Your task to perform on an android device: toggle notifications settings in the gmail app Image 0: 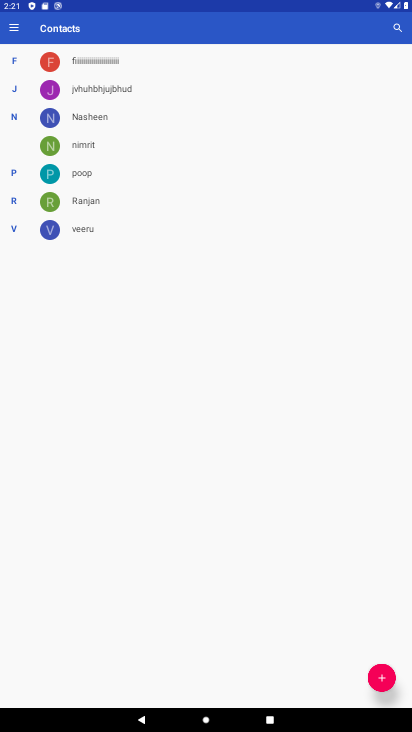
Step 0: press home button
Your task to perform on an android device: toggle notifications settings in the gmail app Image 1: 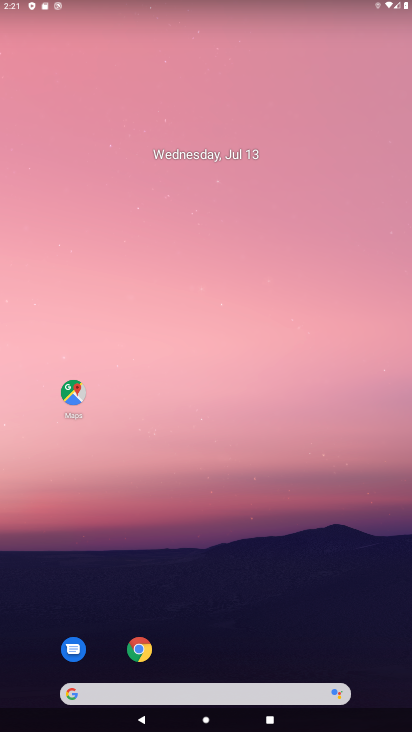
Step 1: drag from (252, 571) to (242, 100)
Your task to perform on an android device: toggle notifications settings in the gmail app Image 2: 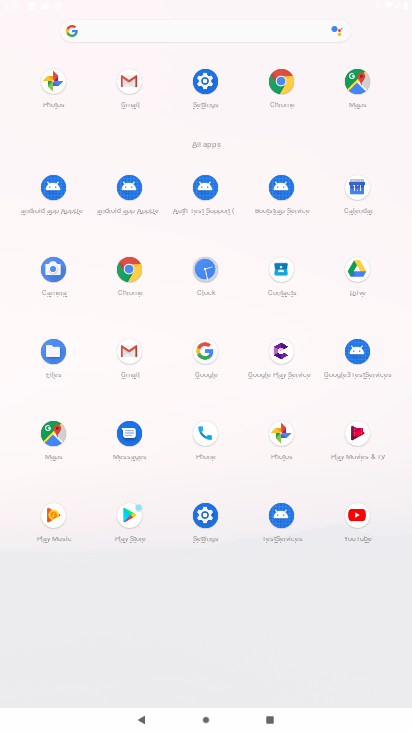
Step 2: click (128, 79)
Your task to perform on an android device: toggle notifications settings in the gmail app Image 3: 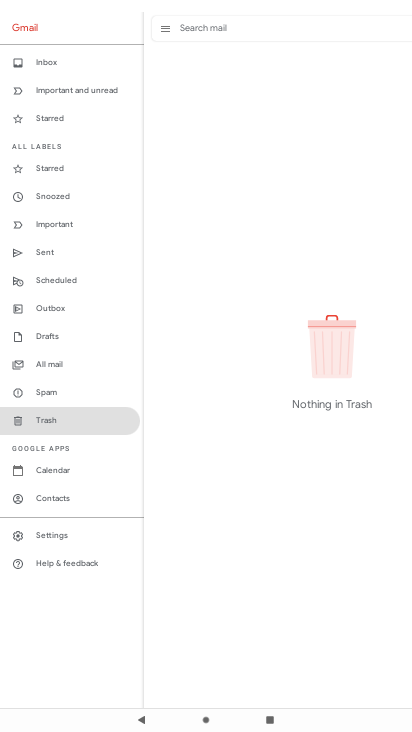
Step 3: click (51, 532)
Your task to perform on an android device: toggle notifications settings in the gmail app Image 4: 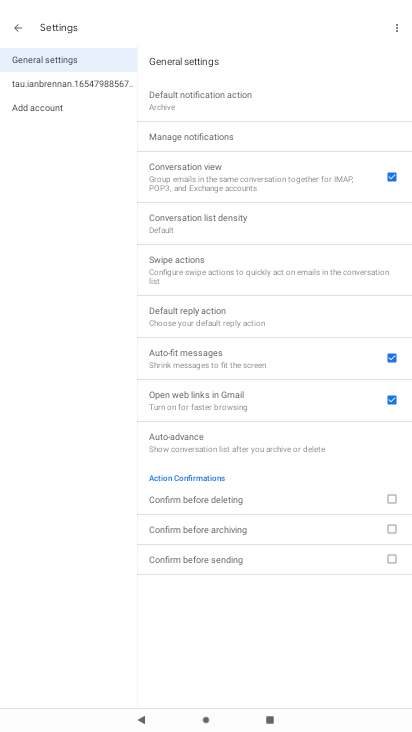
Step 4: click (201, 128)
Your task to perform on an android device: toggle notifications settings in the gmail app Image 5: 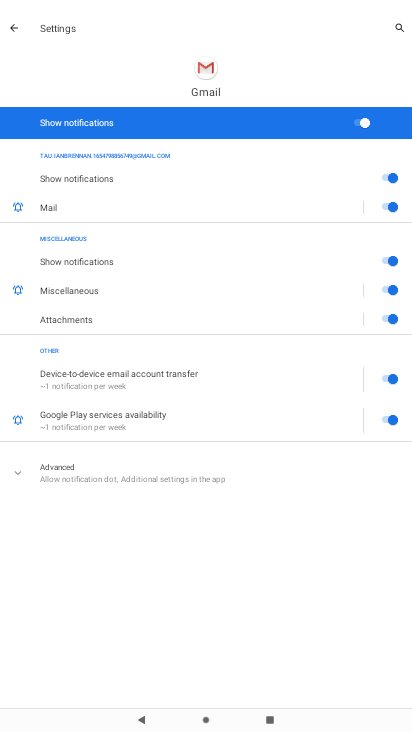
Step 5: click (366, 122)
Your task to perform on an android device: toggle notifications settings in the gmail app Image 6: 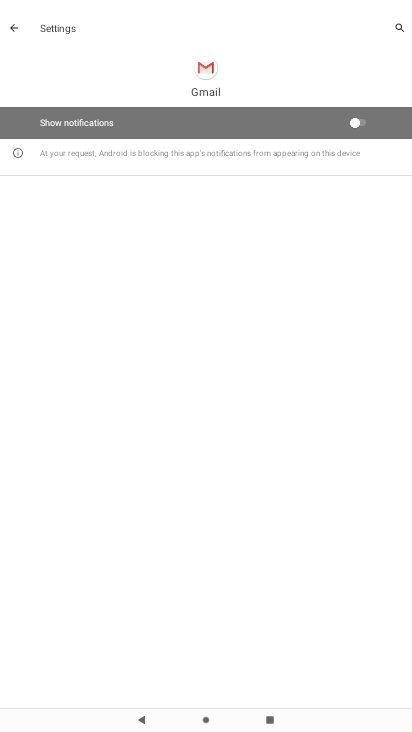
Step 6: task complete